Your task to perform on an android device: Open accessibility settings Image 0: 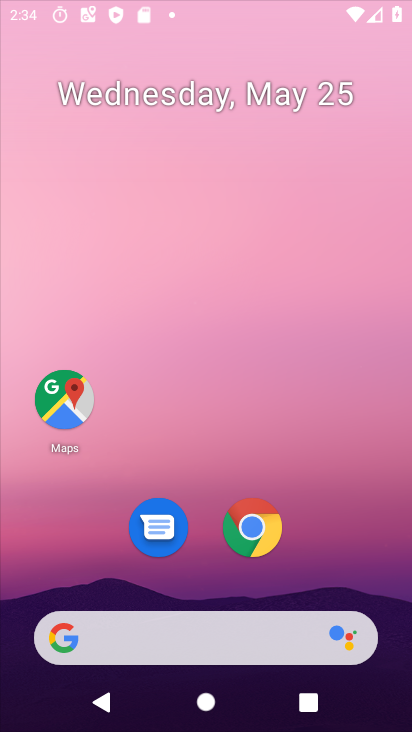
Step 0: click (353, 129)
Your task to perform on an android device: Open accessibility settings Image 1: 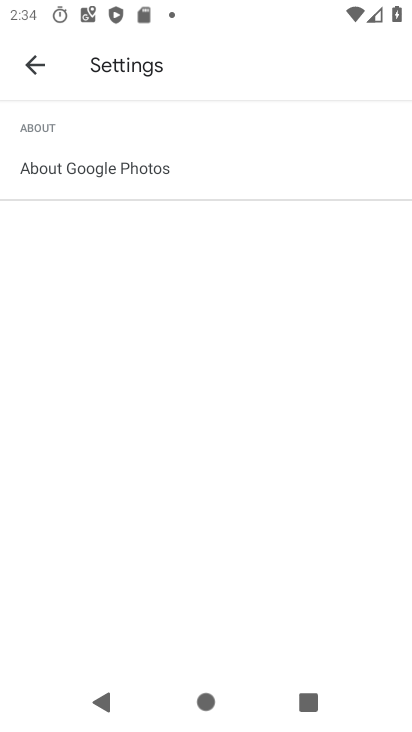
Step 1: press home button
Your task to perform on an android device: Open accessibility settings Image 2: 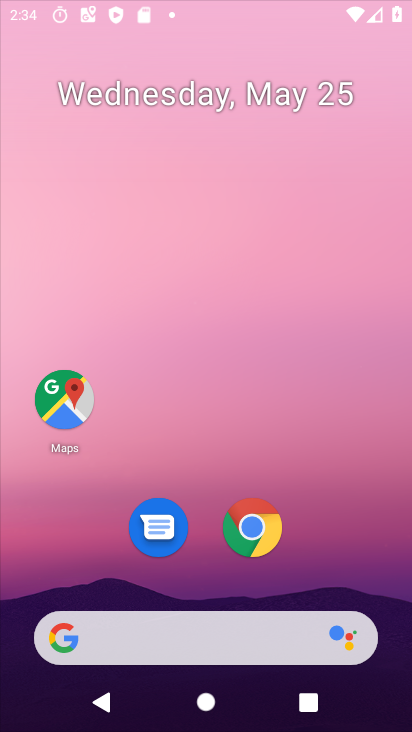
Step 2: drag from (234, 638) to (344, 7)
Your task to perform on an android device: Open accessibility settings Image 3: 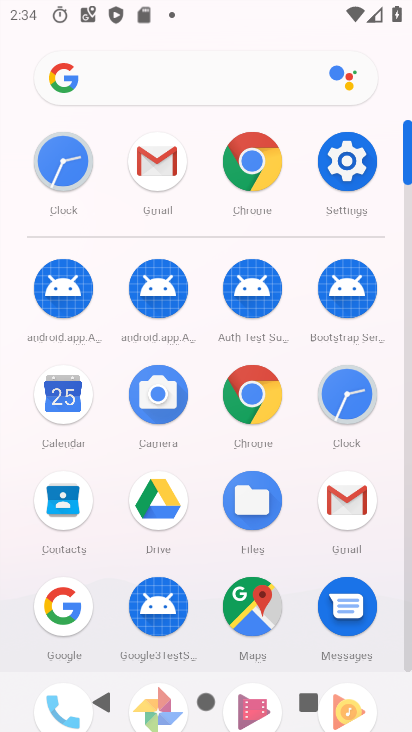
Step 3: click (347, 172)
Your task to perform on an android device: Open accessibility settings Image 4: 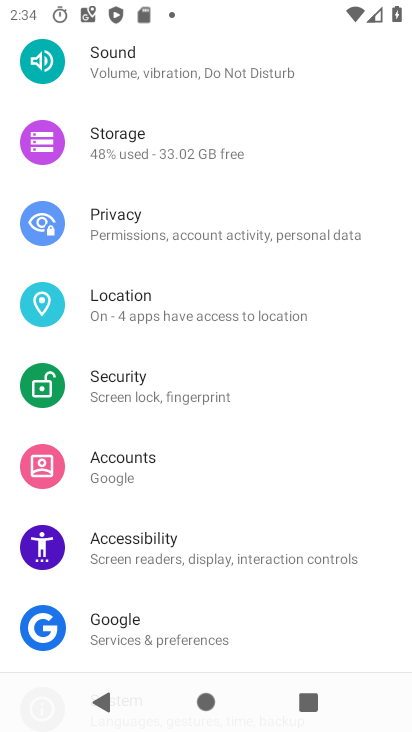
Step 4: click (156, 566)
Your task to perform on an android device: Open accessibility settings Image 5: 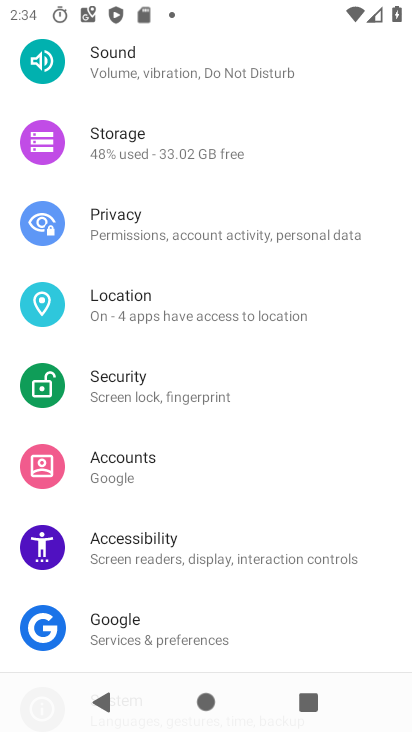
Step 5: click (156, 566)
Your task to perform on an android device: Open accessibility settings Image 6: 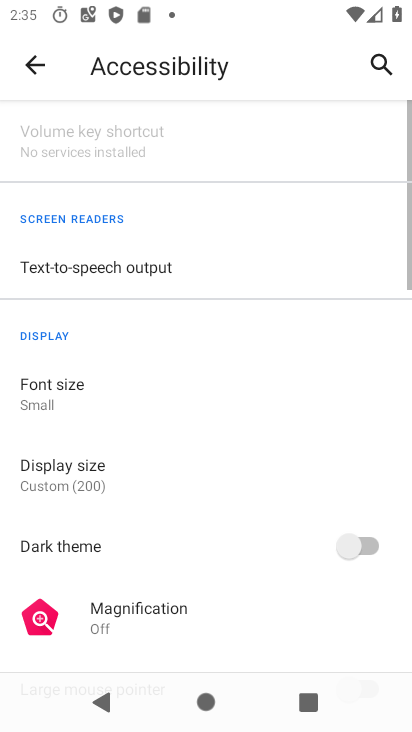
Step 6: task complete